Your task to perform on an android device: Go to accessibility settings Image 0: 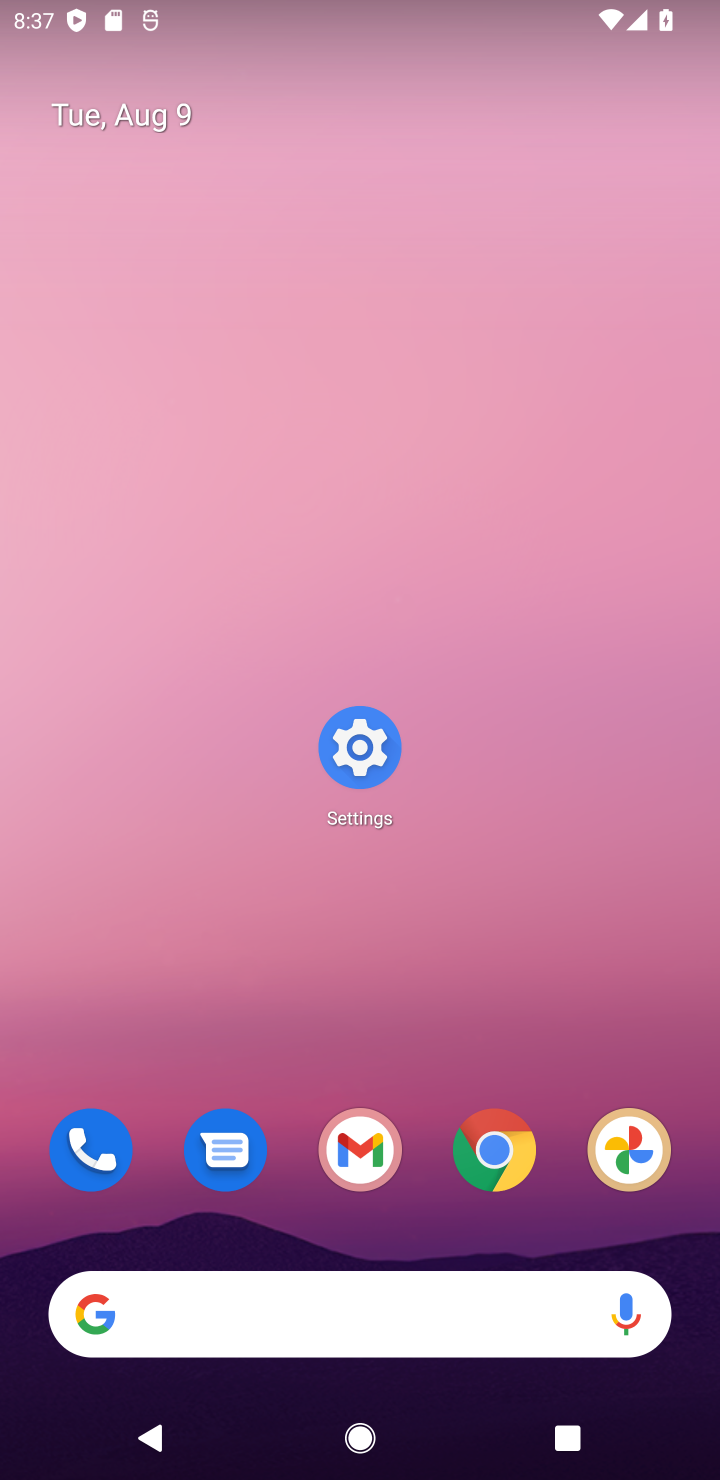
Step 0: click (356, 740)
Your task to perform on an android device: Go to accessibility settings Image 1: 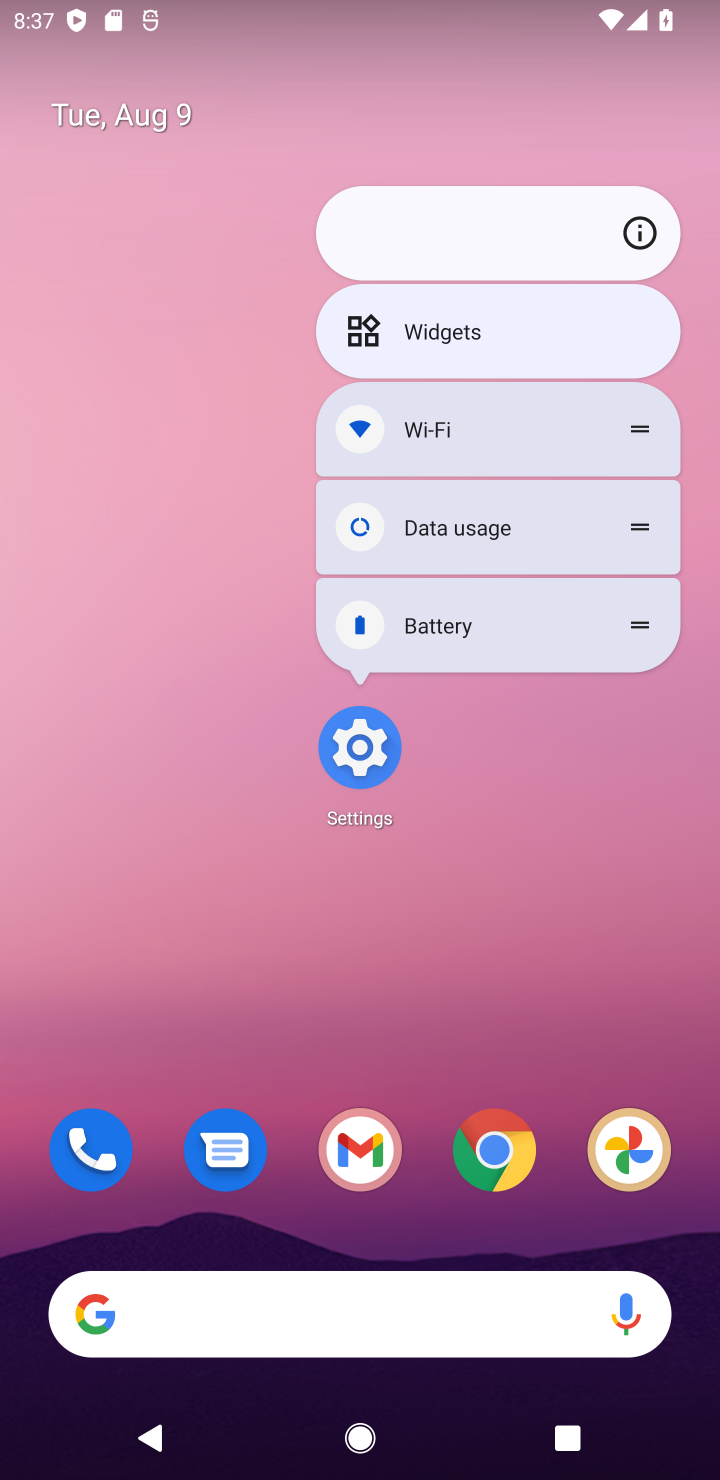
Step 1: click (356, 738)
Your task to perform on an android device: Go to accessibility settings Image 2: 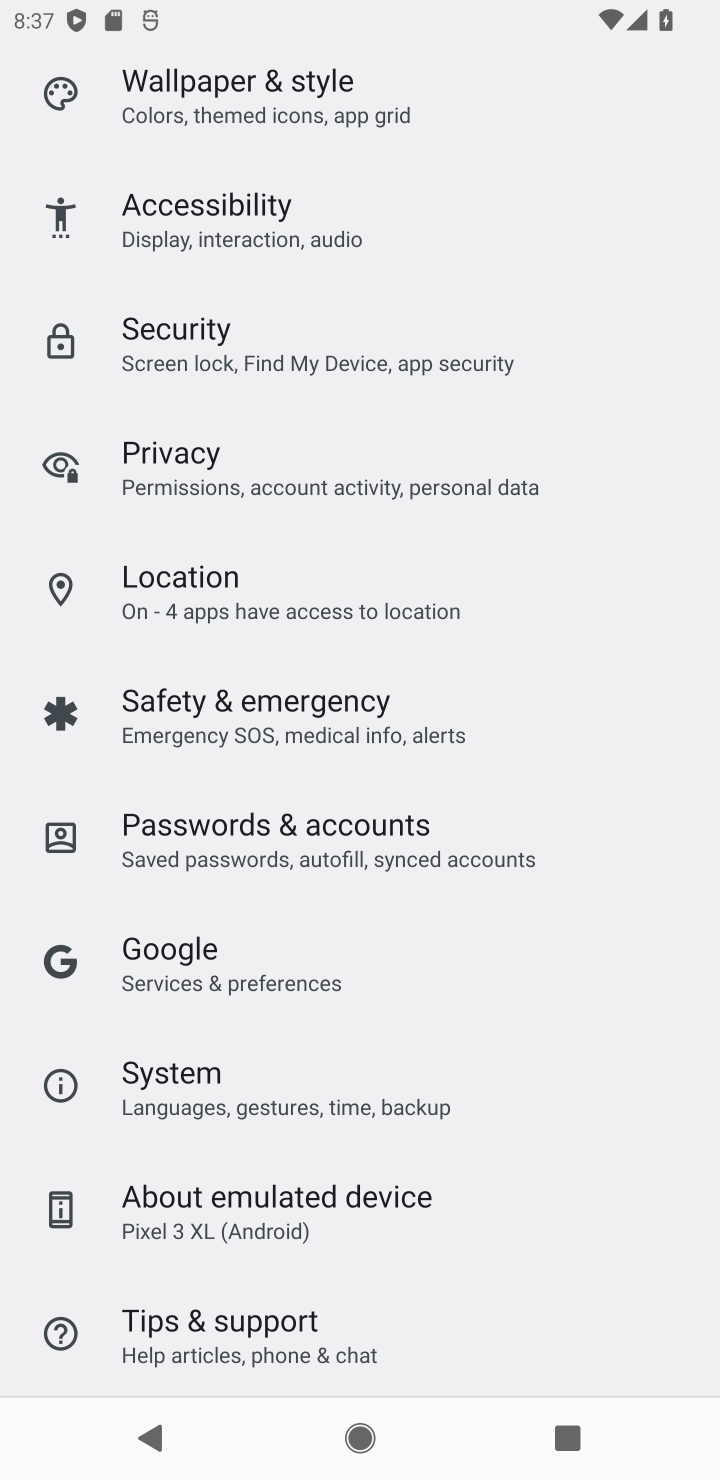
Step 2: click (255, 212)
Your task to perform on an android device: Go to accessibility settings Image 3: 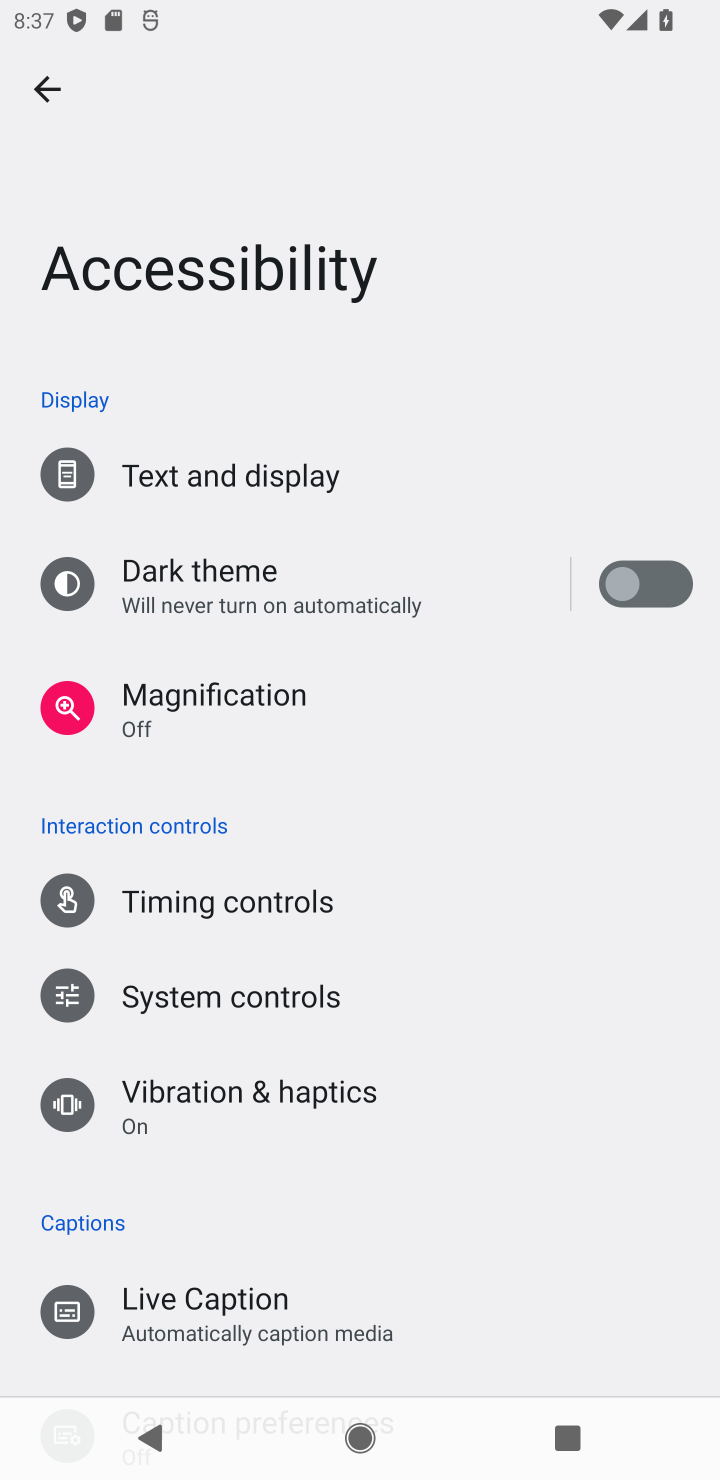
Step 3: task complete